Your task to perform on an android device: Open Android settings Image 0: 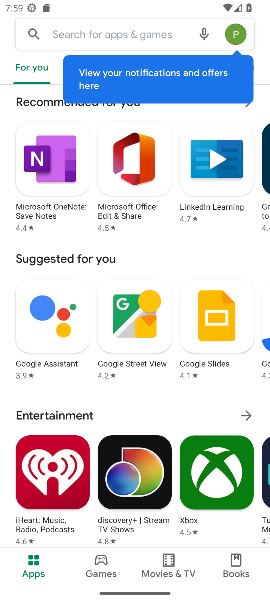
Step 0: press home button
Your task to perform on an android device: Open Android settings Image 1: 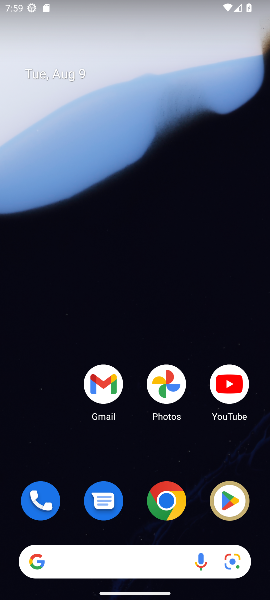
Step 1: click (120, 82)
Your task to perform on an android device: Open Android settings Image 2: 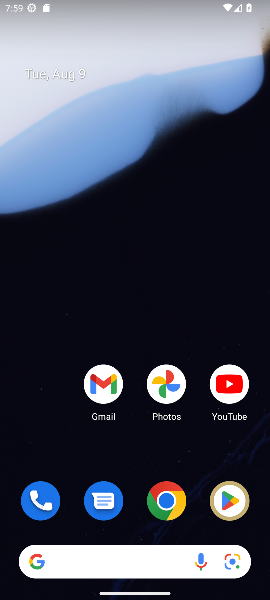
Step 2: drag from (125, 463) to (107, 70)
Your task to perform on an android device: Open Android settings Image 3: 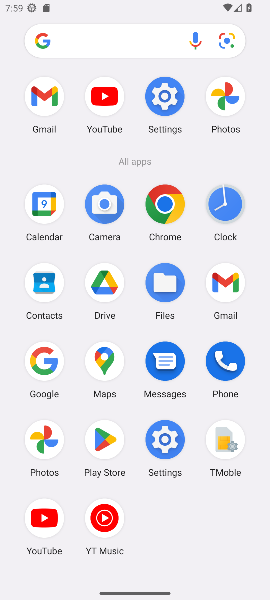
Step 3: click (167, 94)
Your task to perform on an android device: Open Android settings Image 4: 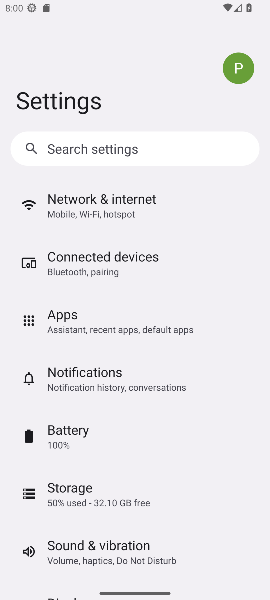
Step 4: drag from (115, 498) to (126, 144)
Your task to perform on an android device: Open Android settings Image 5: 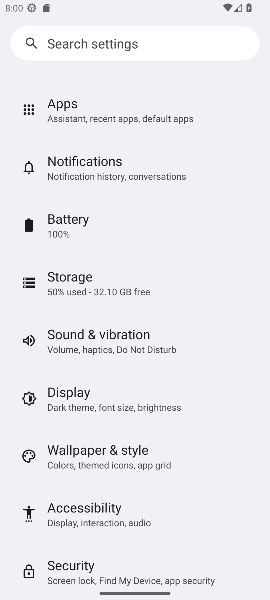
Step 5: drag from (97, 552) to (130, 190)
Your task to perform on an android device: Open Android settings Image 6: 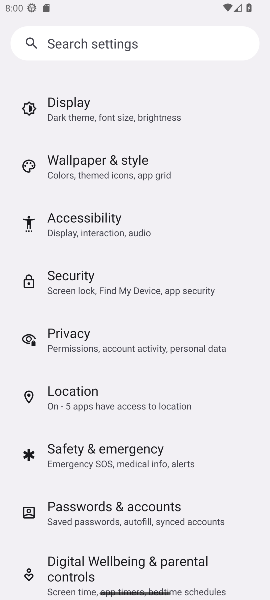
Step 6: drag from (115, 546) to (137, 31)
Your task to perform on an android device: Open Android settings Image 7: 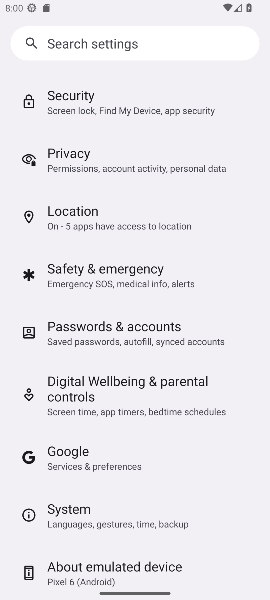
Step 7: click (108, 518)
Your task to perform on an android device: Open Android settings Image 8: 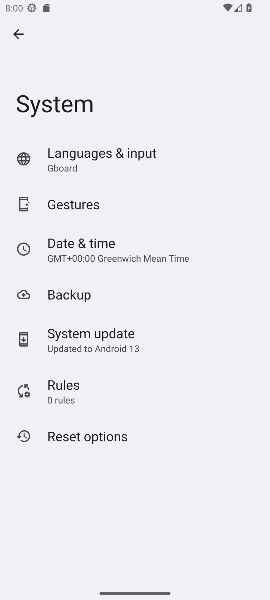
Step 8: task complete